Your task to perform on an android device: Go to calendar. Show me events next week Image 0: 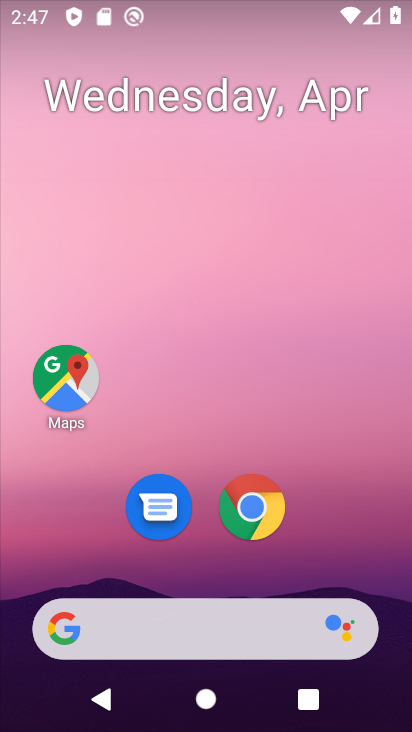
Step 0: drag from (327, 488) to (319, 17)
Your task to perform on an android device: Go to calendar. Show me events next week Image 1: 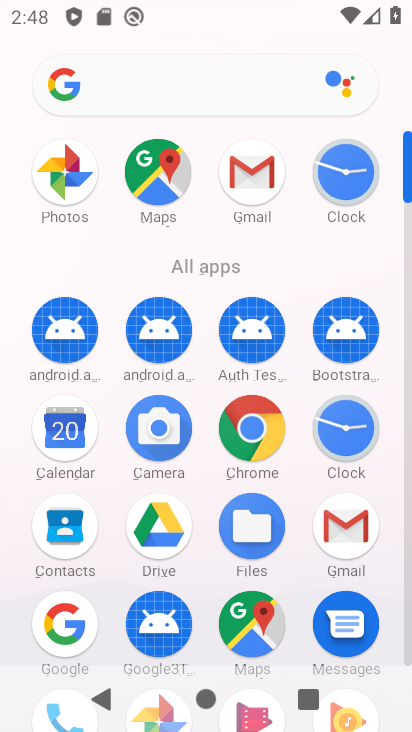
Step 1: click (85, 429)
Your task to perform on an android device: Go to calendar. Show me events next week Image 2: 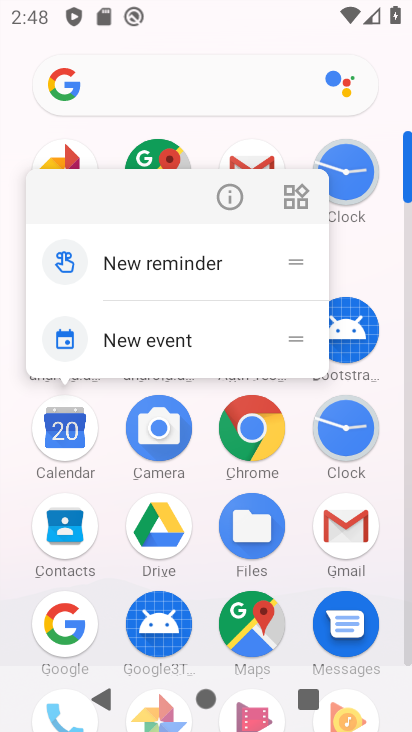
Step 2: click (79, 423)
Your task to perform on an android device: Go to calendar. Show me events next week Image 3: 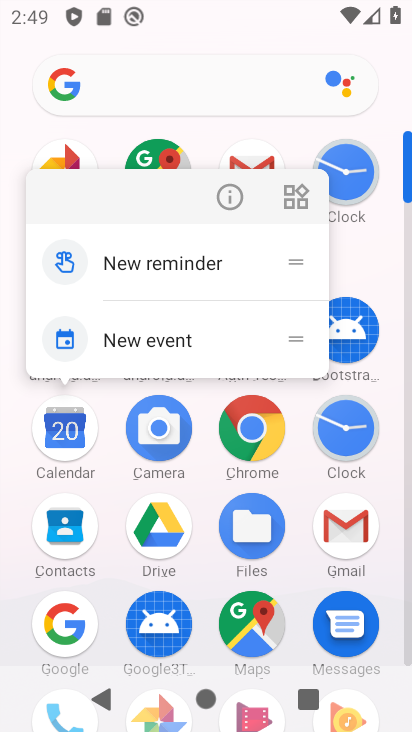
Step 3: click (68, 656)
Your task to perform on an android device: Go to calendar. Show me events next week Image 4: 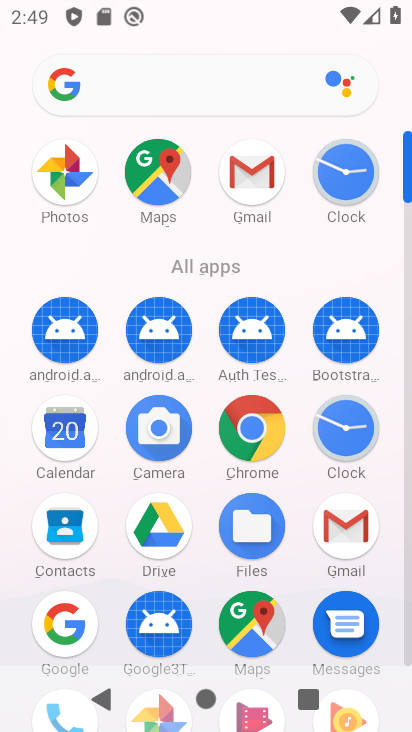
Step 4: click (50, 442)
Your task to perform on an android device: Go to calendar. Show me events next week Image 5: 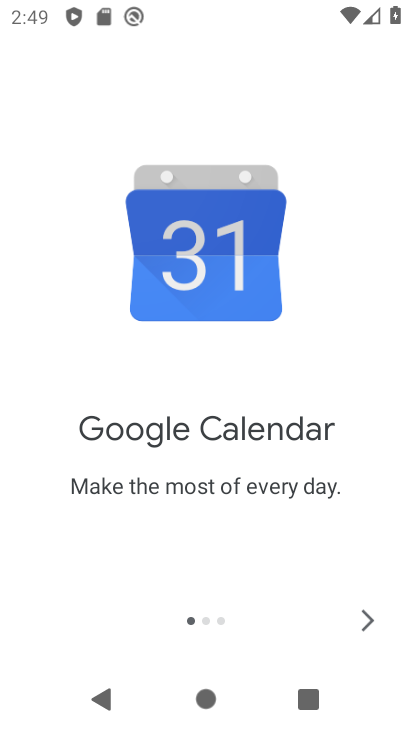
Step 5: click (370, 614)
Your task to perform on an android device: Go to calendar. Show me events next week Image 6: 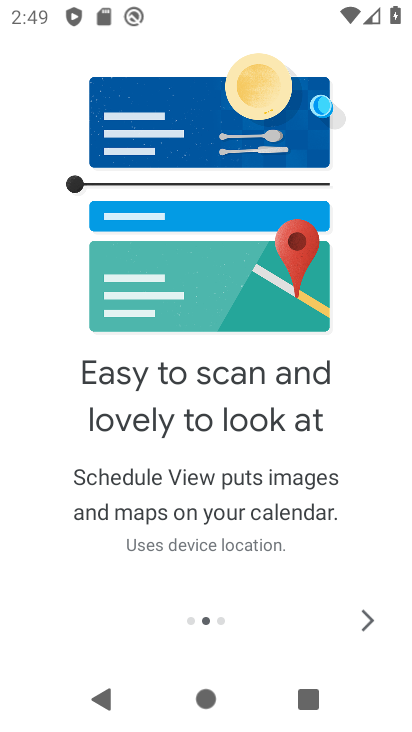
Step 6: click (370, 614)
Your task to perform on an android device: Go to calendar. Show me events next week Image 7: 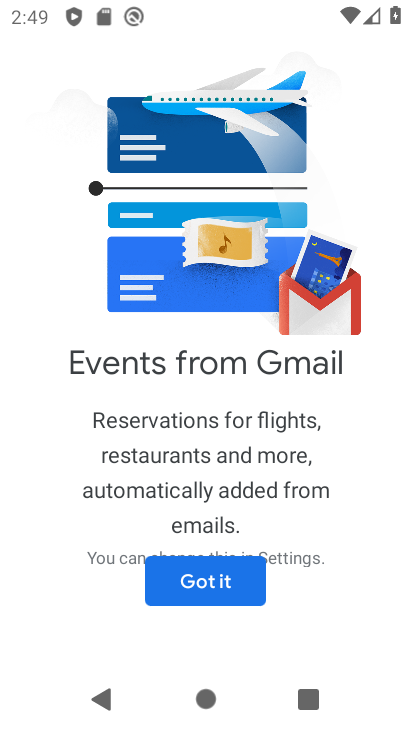
Step 7: click (210, 579)
Your task to perform on an android device: Go to calendar. Show me events next week Image 8: 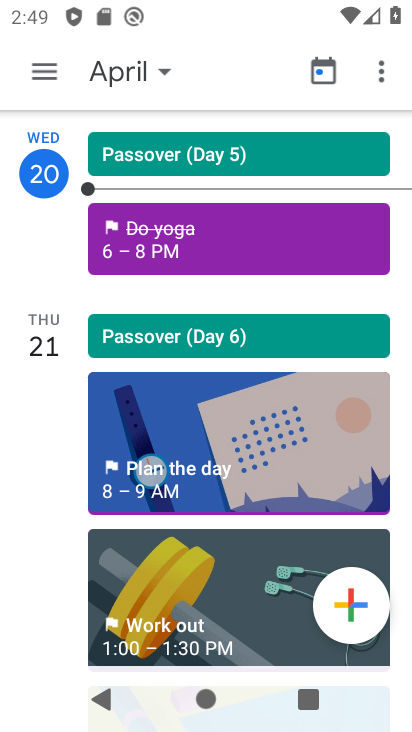
Step 8: click (152, 60)
Your task to perform on an android device: Go to calendar. Show me events next week Image 9: 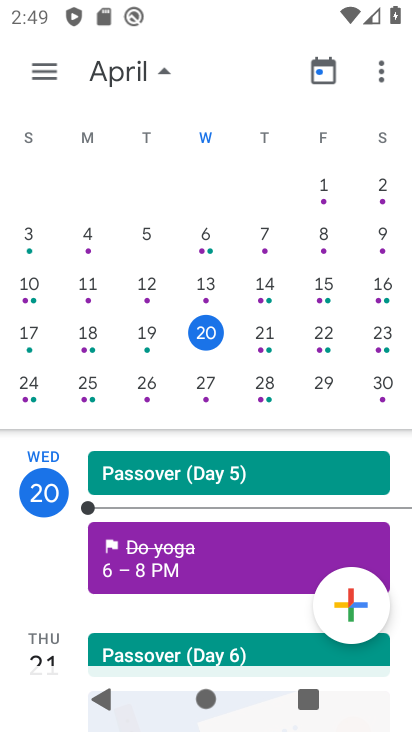
Step 9: click (204, 389)
Your task to perform on an android device: Go to calendar. Show me events next week Image 10: 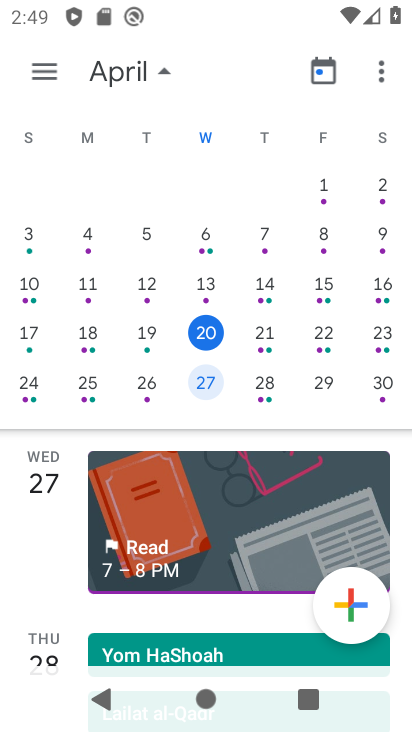
Step 10: task complete